Your task to perform on an android device: set an alarm Image 0: 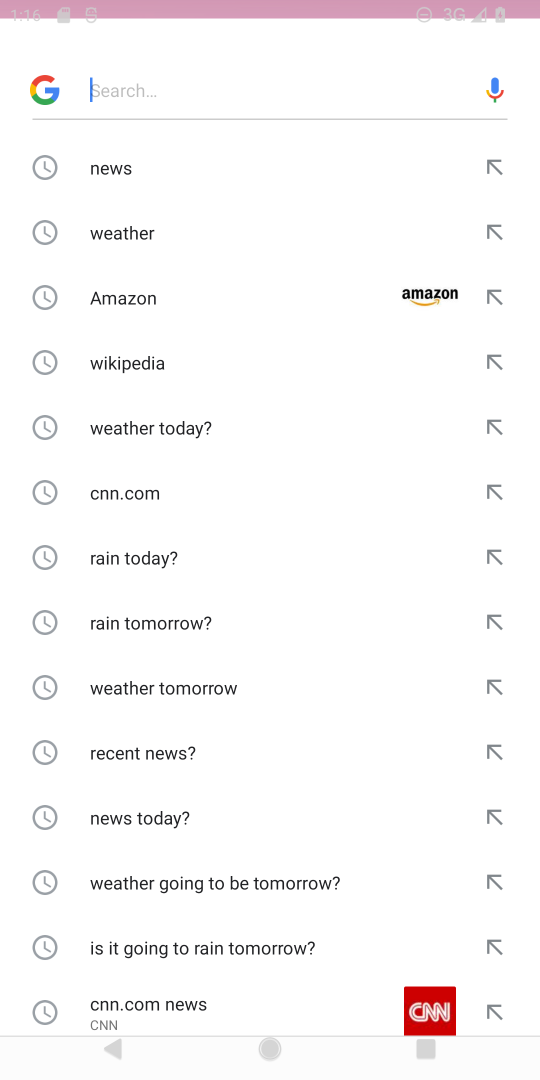
Step 0: press home button
Your task to perform on an android device: set an alarm Image 1: 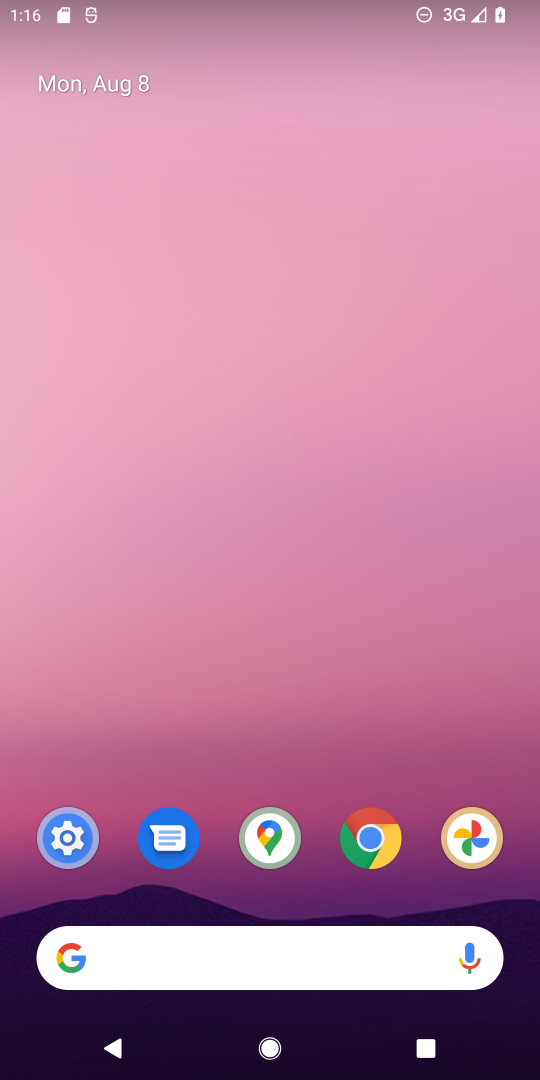
Step 1: drag from (227, 890) to (311, 293)
Your task to perform on an android device: set an alarm Image 2: 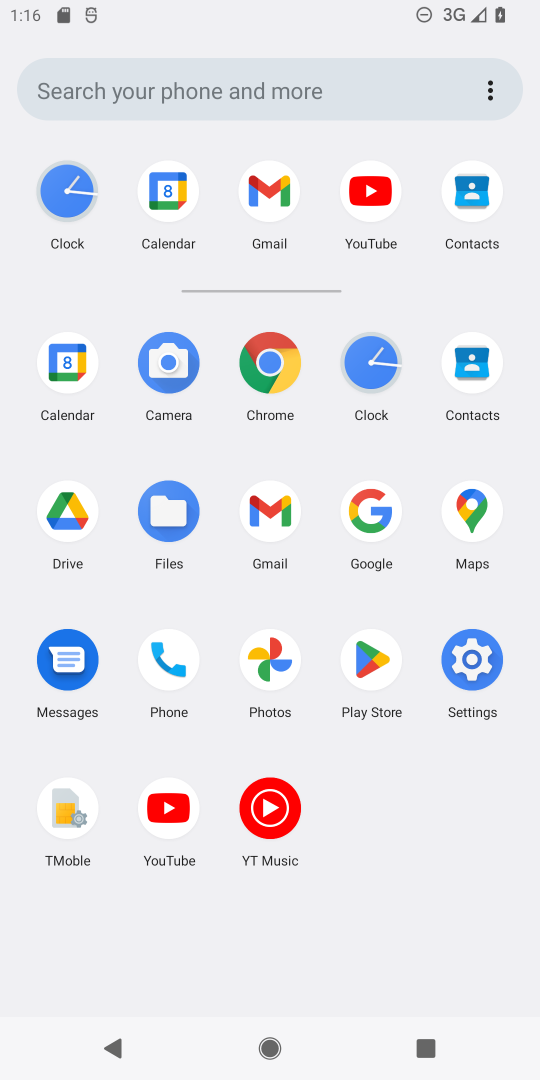
Step 2: click (63, 204)
Your task to perform on an android device: set an alarm Image 3: 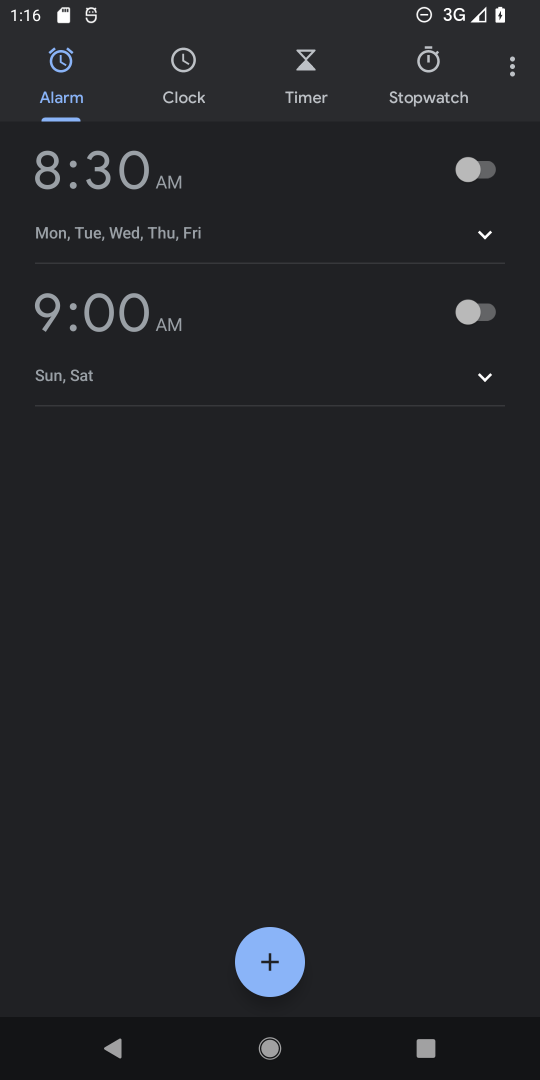
Step 3: click (464, 169)
Your task to perform on an android device: set an alarm Image 4: 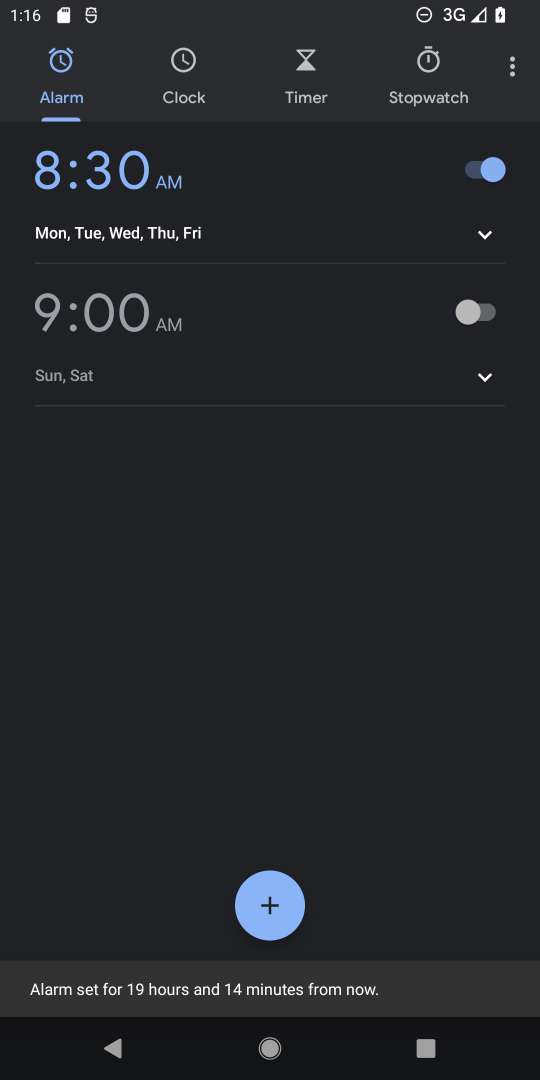
Step 4: task complete